Your task to perform on an android device: see sites visited before in the chrome app Image 0: 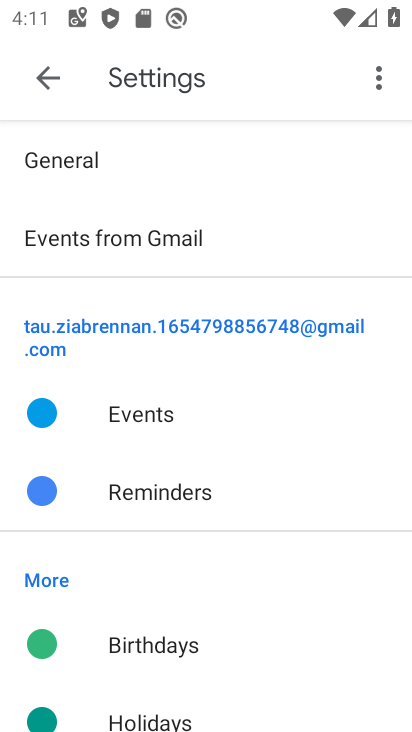
Step 0: press back button
Your task to perform on an android device: see sites visited before in the chrome app Image 1: 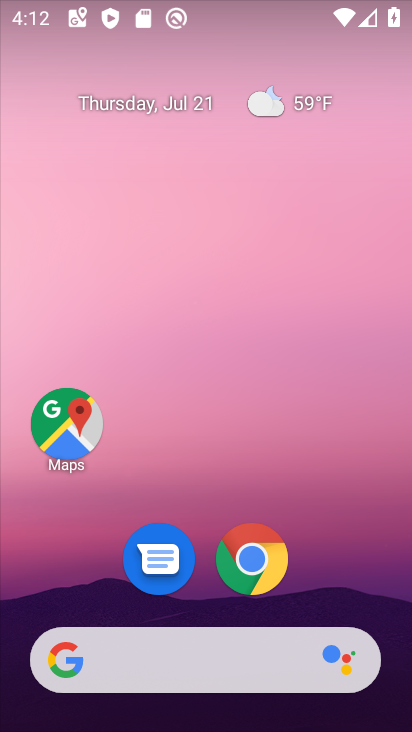
Step 1: click (256, 562)
Your task to perform on an android device: see sites visited before in the chrome app Image 2: 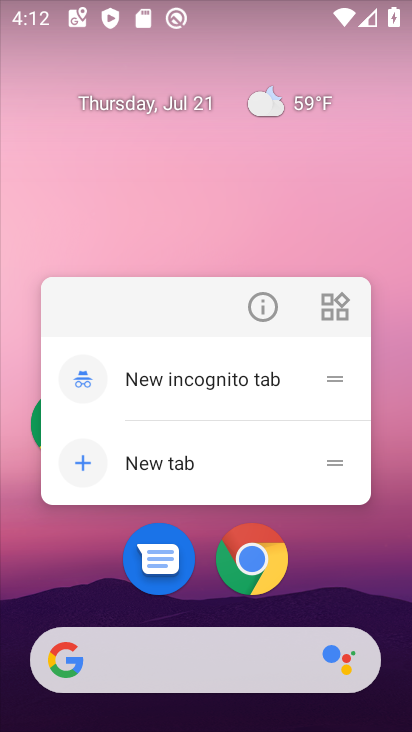
Step 2: click (249, 563)
Your task to perform on an android device: see sites visited before in the chrome app Image 3: 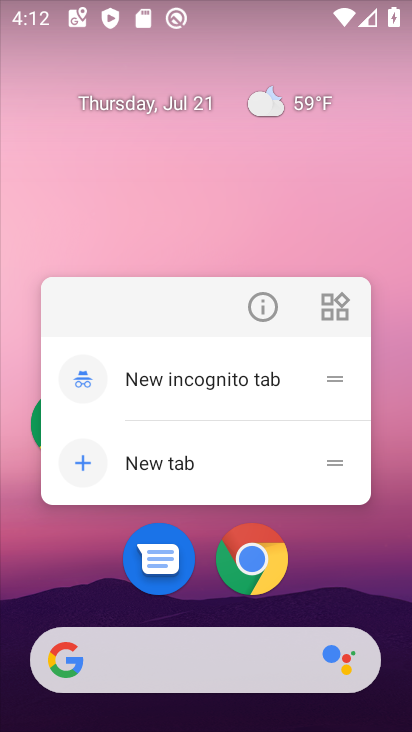
Step 3: click (254, 568)
Your task to perform on an android device: see sites visited before in the chrome app Image 4: 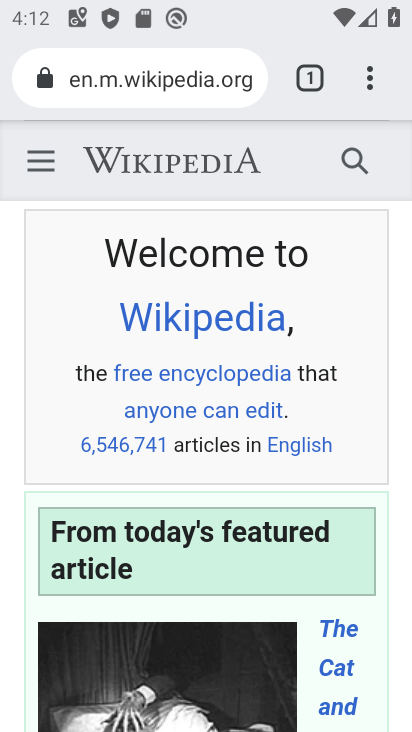
Step 4: task complete